Your task to perform on an android device: When is my next meeting? Image 0: 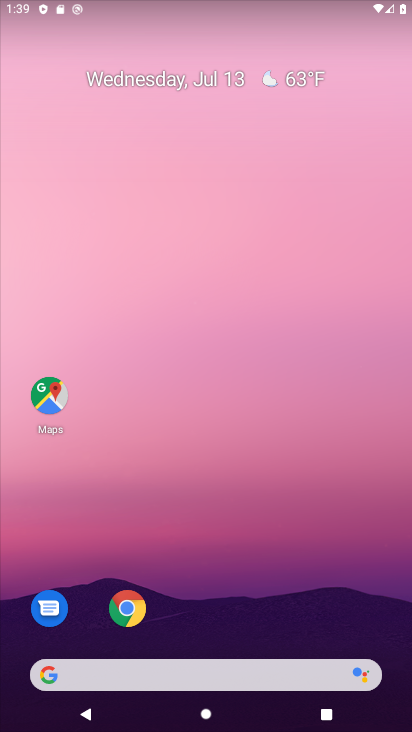
Step 0: drag from (283, 626) to (285, 98)
Your task to perform on an android device: When is my next meeting? Image 1: 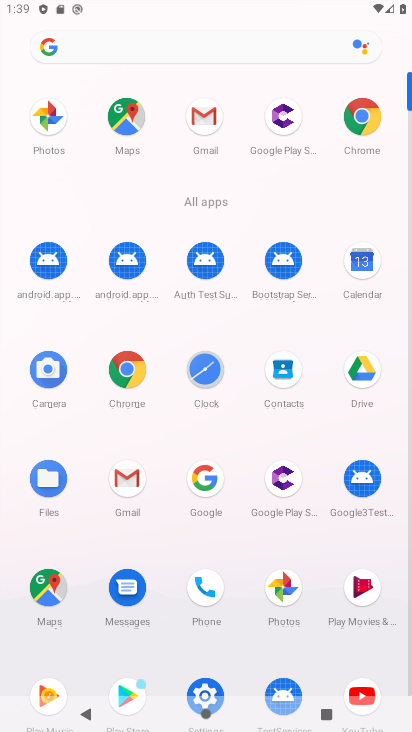
Step 1: click (371, 269)
Your task to perform on an android device: When is my next meeting? Image 2: 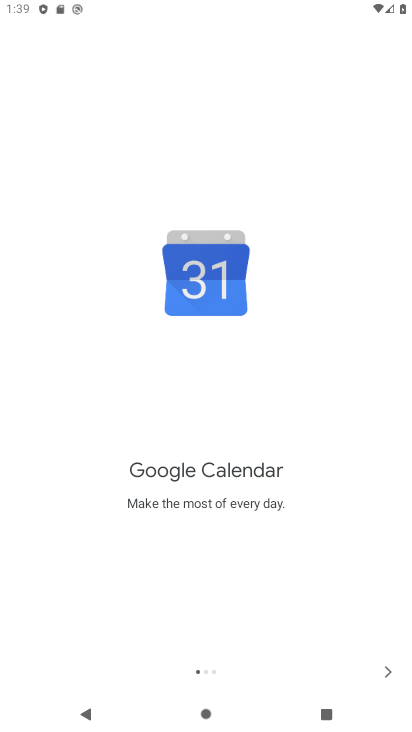
Step 2: click (388, 665)
Your task to perform on an android device: When is my next meeting? Image 3: 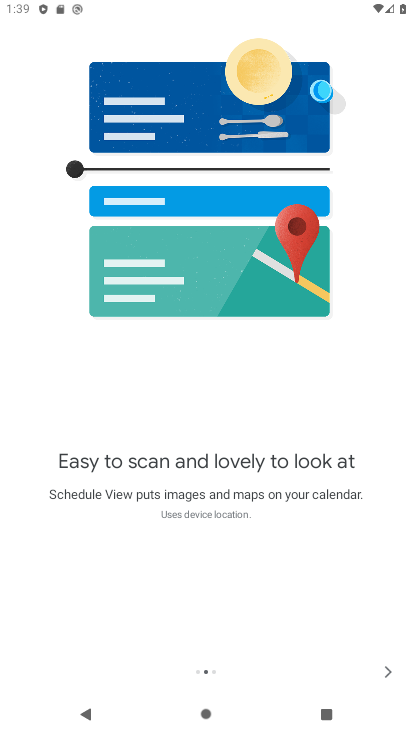
Step 3: click (389, 665)
Your task to perform on an android device: When is my next meeting? Image 4: 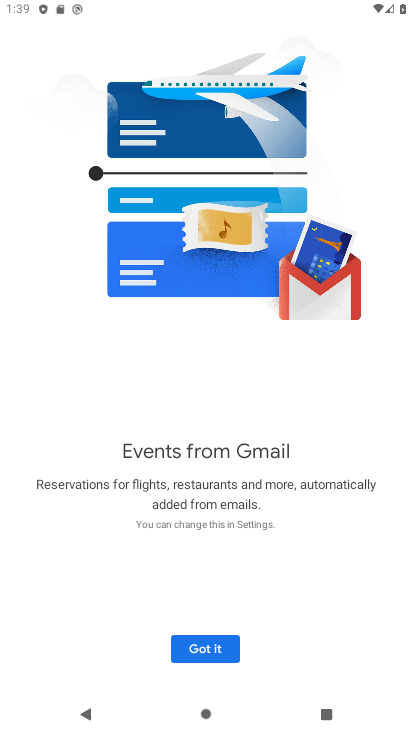
Step 4: click (196, 659)
Your task to perform on an android device: When is my next meeting? Image 5: 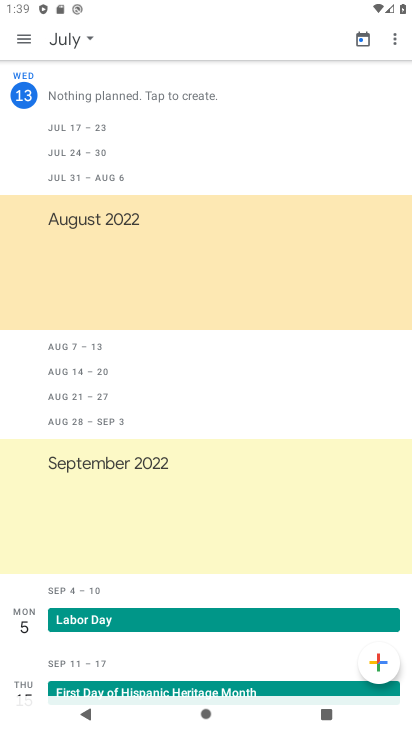
Step 5: click (30, 37)
Your task to perform on an android device: When is my next meeting? Image 6: 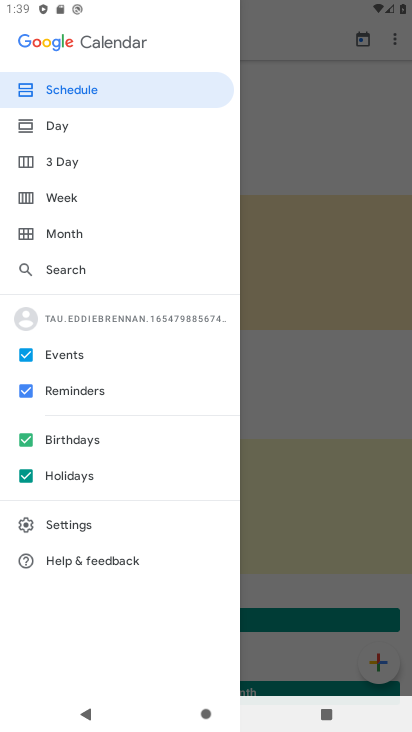
Step 6: click (331, 577)
Your task to perform on an android device: When is my next meeting? Image 7: 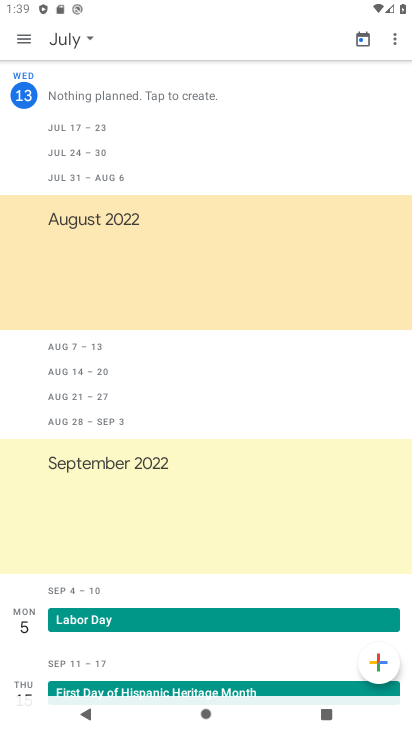
Step 7: task complete